Your task to perform on an android device: toggle location history Image 0: 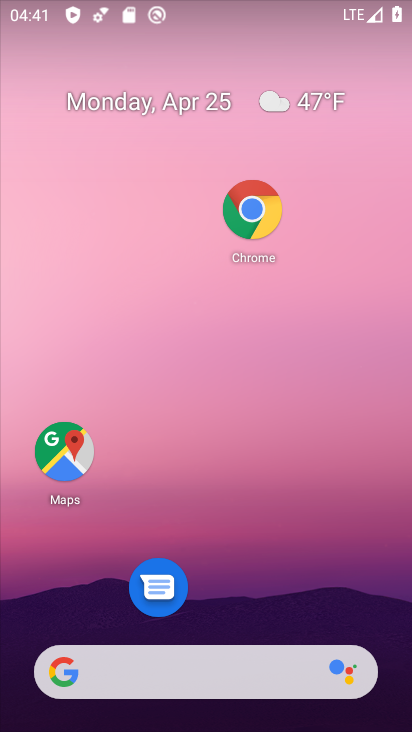
Step 0: drag from (385, 625) to (351, 177)
Your task to perform on an android device: toggle location history Image 1: 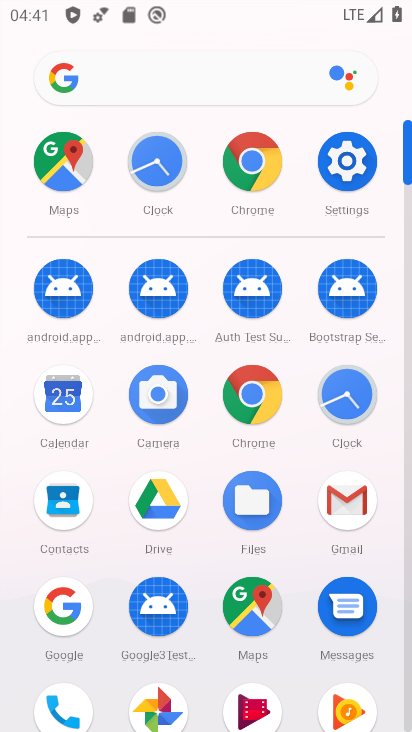
Step 1: click (71, 174)
Your task to perform on an android device: toggle location history Image 2: 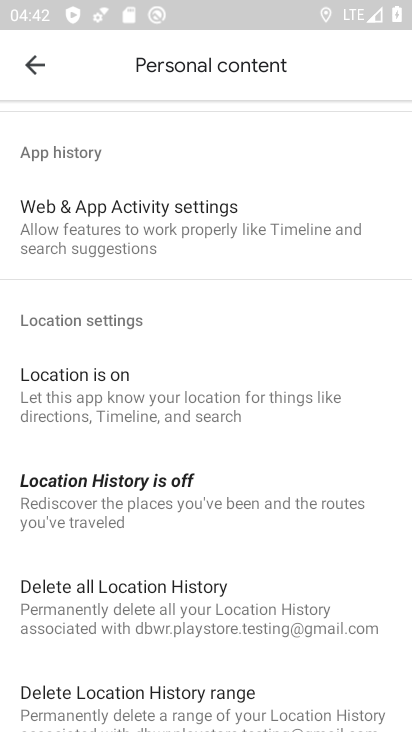
Step 2: click (240, 486)
Your task to perform on an android device: toggle location history Image 3: 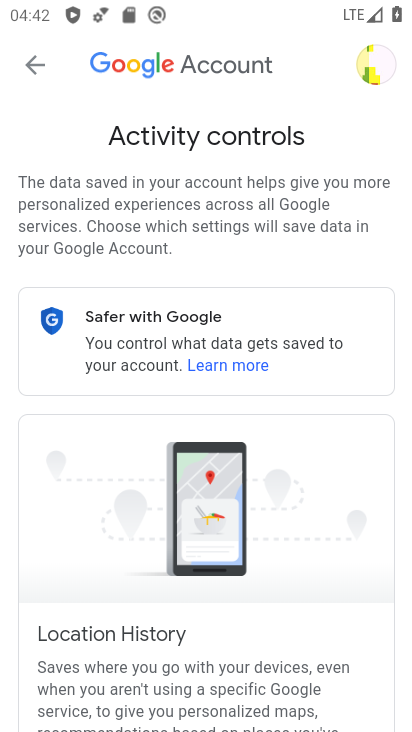
Step 3: drag from (254, 637) to (225, 213)
Your task to perform on an android device: toggle location history Image 4: 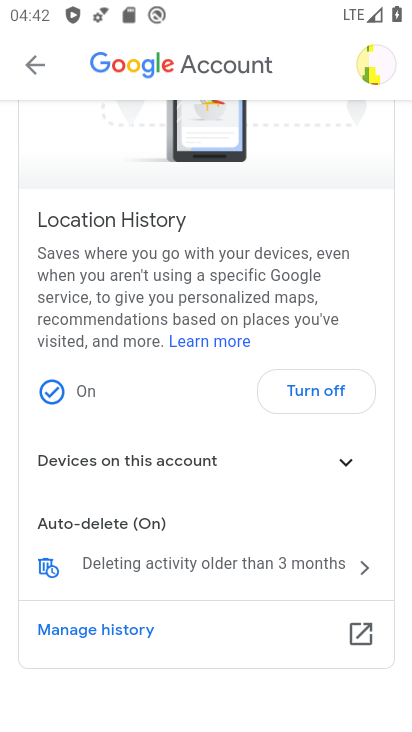
Step 4: click (307, 387)
Your task to perform on an android device: toggle location history Image 5: 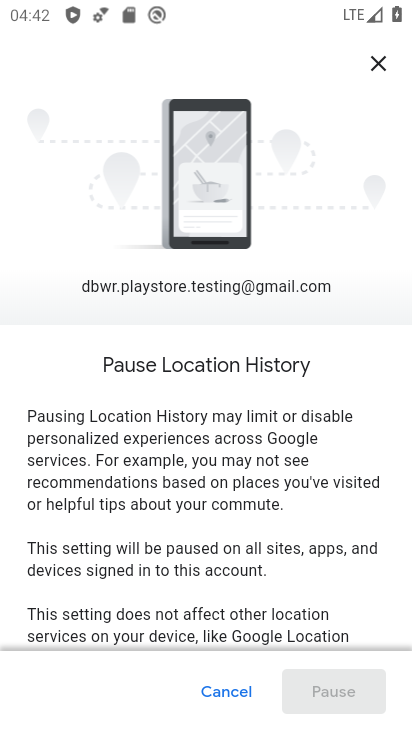
Step 5: drag from (263, 558) to (245, 152)
Your task to perform on an android device: toggle location history Image 6: 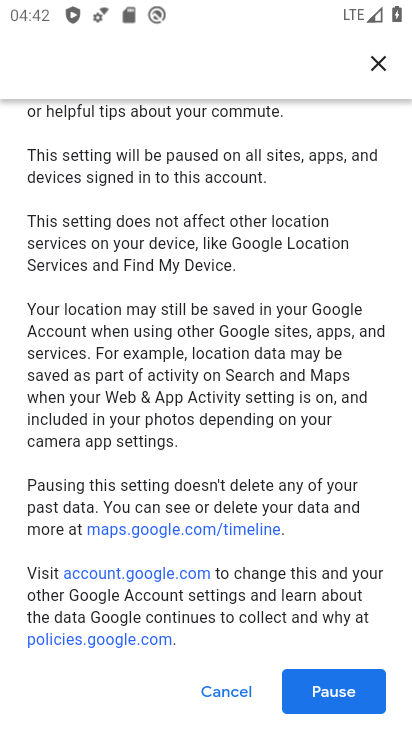
Step 6: click (334, 692)
Your task to perform on an android device: toggle location history Image 7: 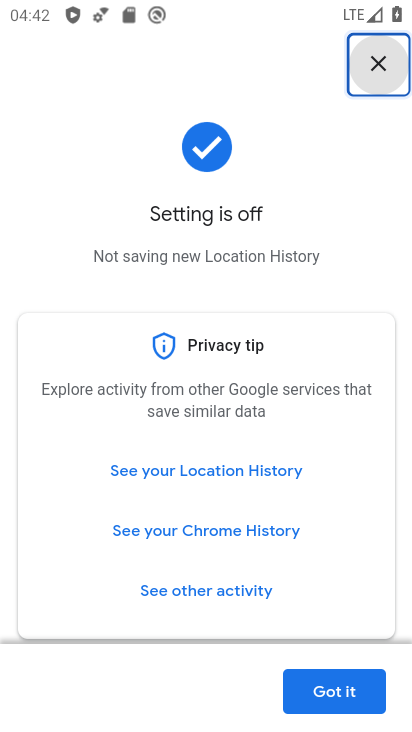
Step 7: click (334, 692)
Your task to perform on an android device: toggle location history Image 8: 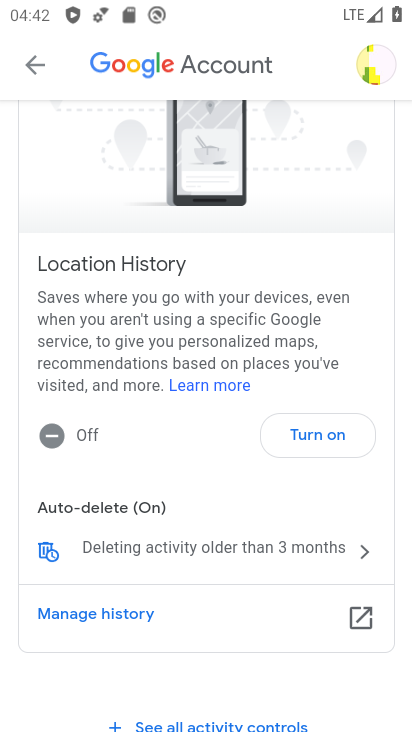
Step 8: task complete